Your task to perform on an android device: Go to Reddit.com Image 0: 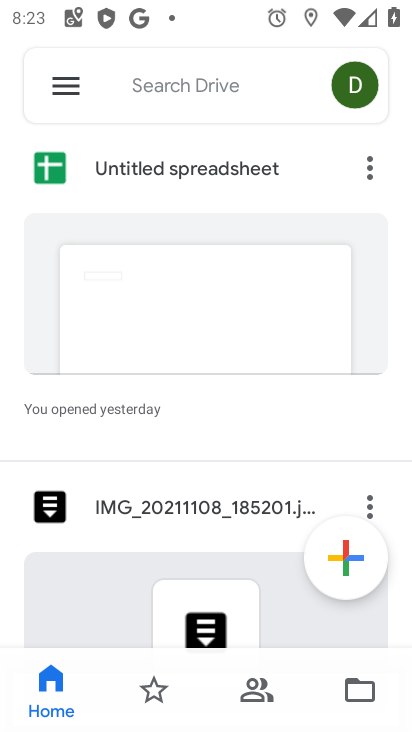
Step 0: press home button
Your task to perform on an android device: Go to Reddit.com Image 1: 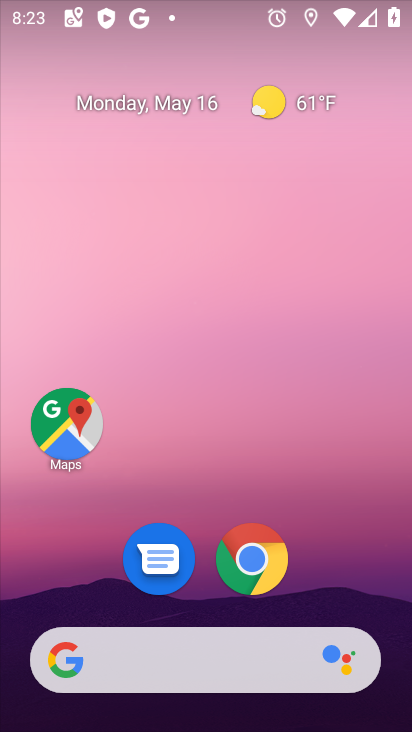
Step 1: drag from (360, 537) to (333, 137)
Your task to perform on an android device: Go to Reddit.com Image 2: 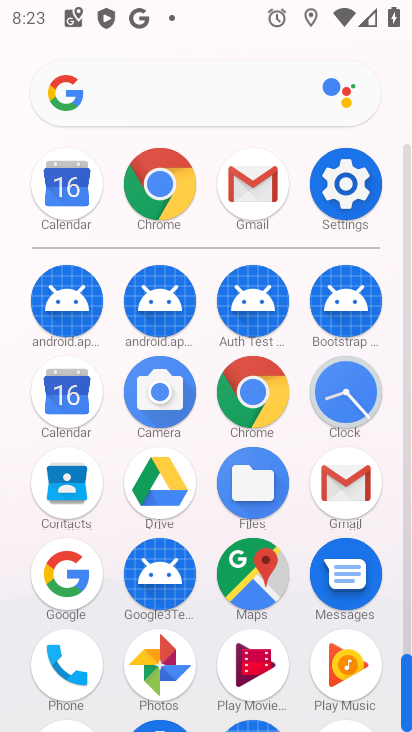
Step 2: click (170, 203)
Your task to perform on an android device: Go to Reddit.com Image 3: 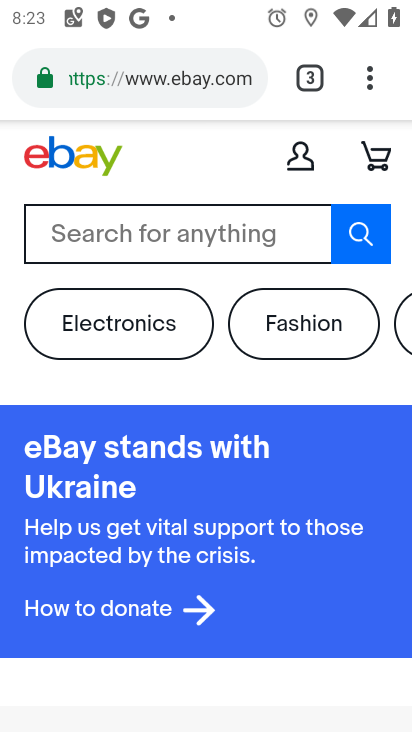
Step 3: click (188, 79)
Your task to perform on an android device: Go to Reddit.com Image 4: 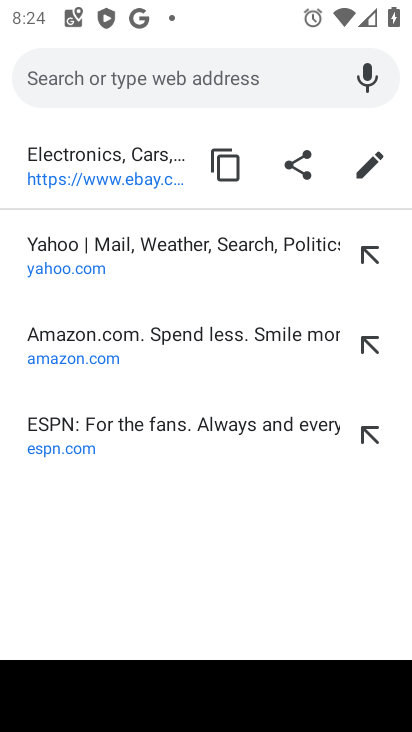
Step 4: type "reddit.com"
Your task to perform on an android device: Go to Reddit.com Image 5: 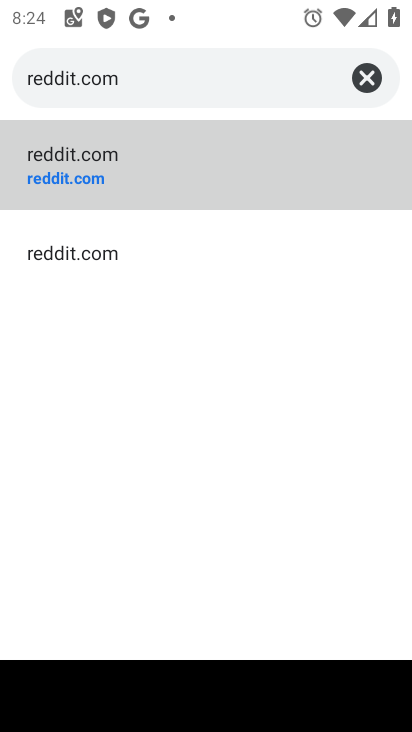
Step 5: click (69, 171)
Your task to perform on an android device: Go to Reddit.com Image 6: 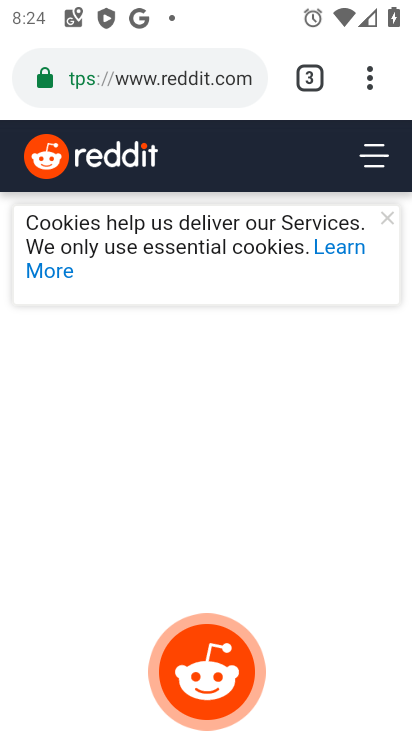
Step 6: task complete